Your task to perform on an android device: turn notification dots on Image 0: 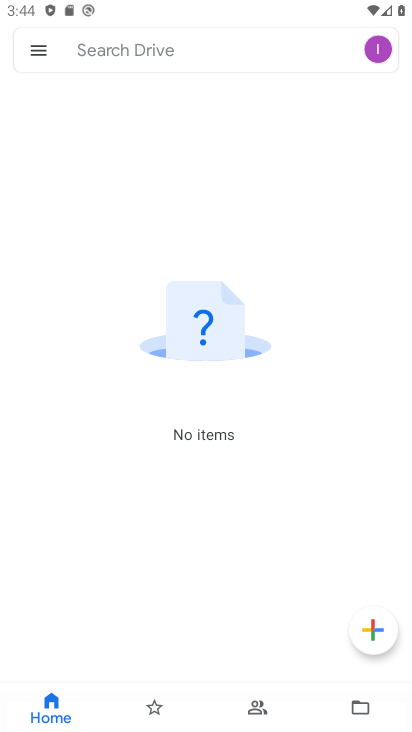
Step 0: press home button
Your task to perform on an android device: turn notification dots on Image 1: 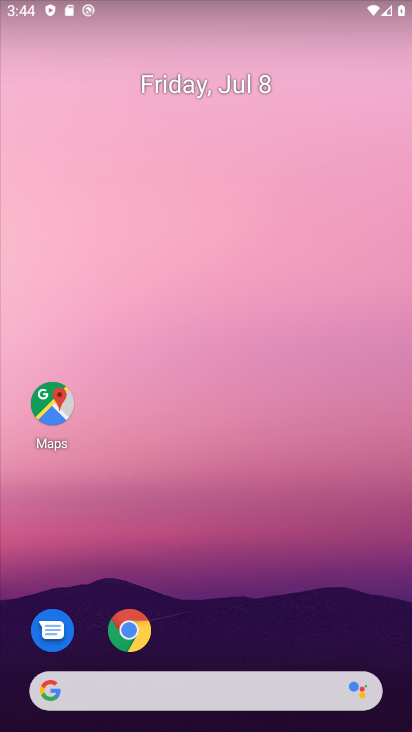
Step 1: click (205, 68)
Your task to perform on an android device: turn notification dots on Image 2: 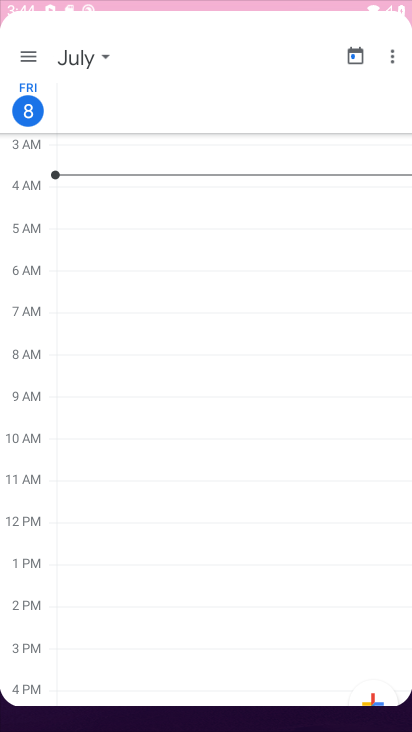
Step 2: task complete